Your task to perform on an android device: Open wifi settings Image 0: 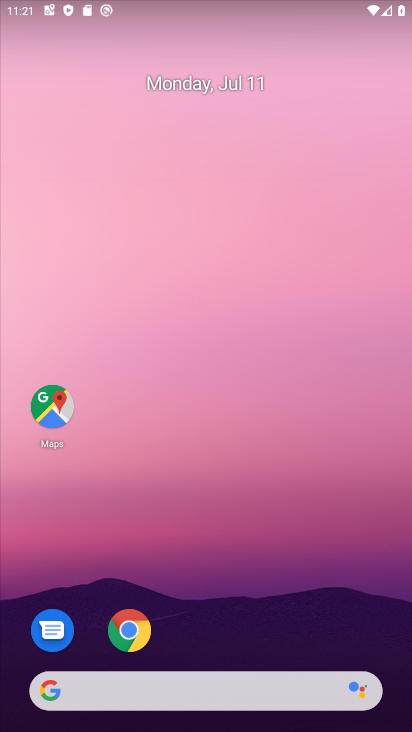
Step 0: drag from (241, 621) to (236, 57)
Your task to perform on an android device: Open wifi settings Image 1: 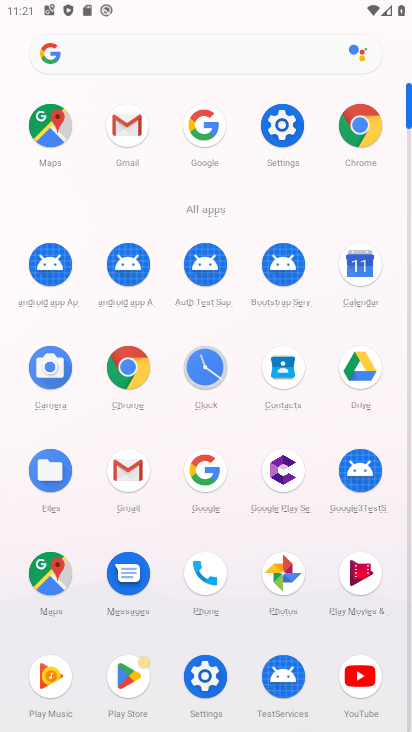
Step 1: click (284, 122)
Your task to perform on an android device: Open wifi settings Image 2: 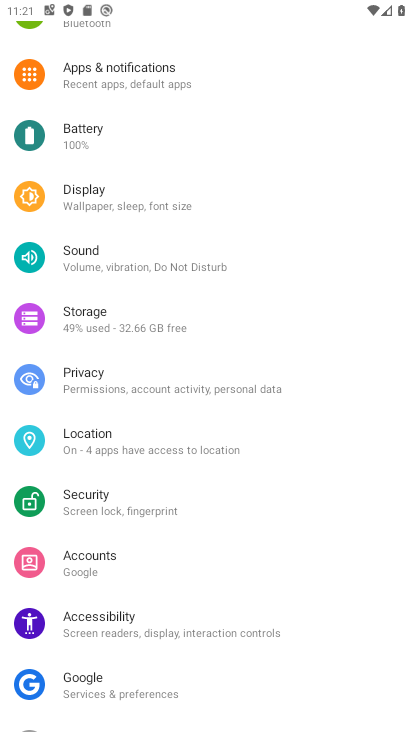
Step 2: drag from (120, 69) to (236, 506)
Your task to perform on an android device: Open wifi settings Image 3: 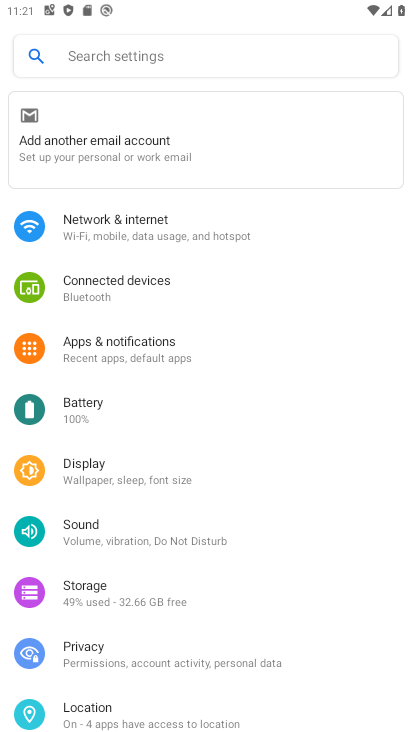
Step 3: click (147, 229)
Your task to perform on an android device: Open wifi settings Image 4: 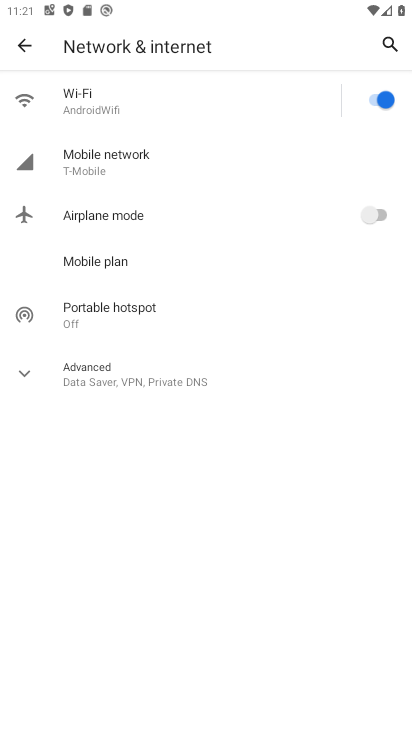
Step 4: click (87, 99)
Your task to perform on an android device: Open wifi settings Image 5: 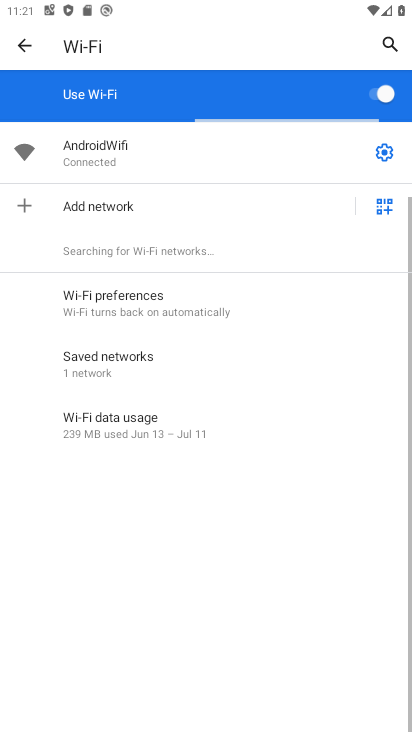
Step 5: click (375, 145)
Your task to perform on an android device: Open wifi settings Image 6: 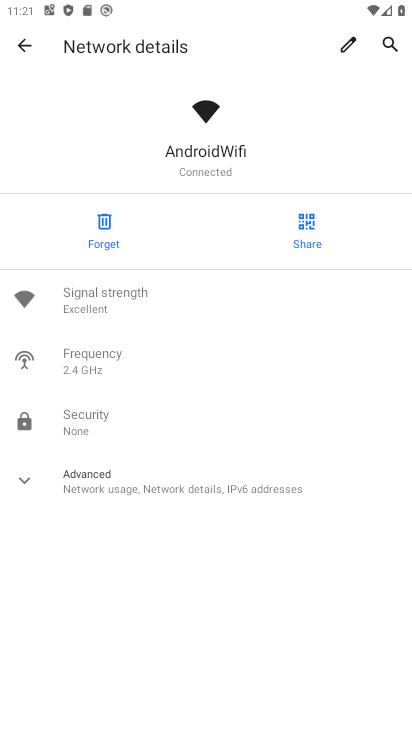
Step 6: task complete